Your task to perform on an android device: open sync settings in chrome Image 0: 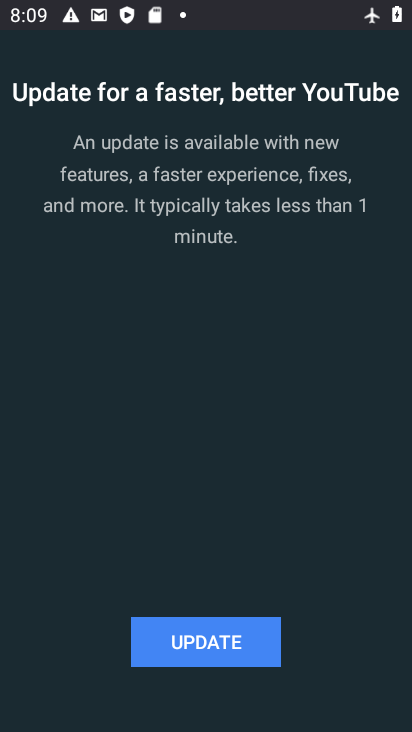
Step 0: press home button
Your task to perform on an android device: open sync settings in chrome Image 1: 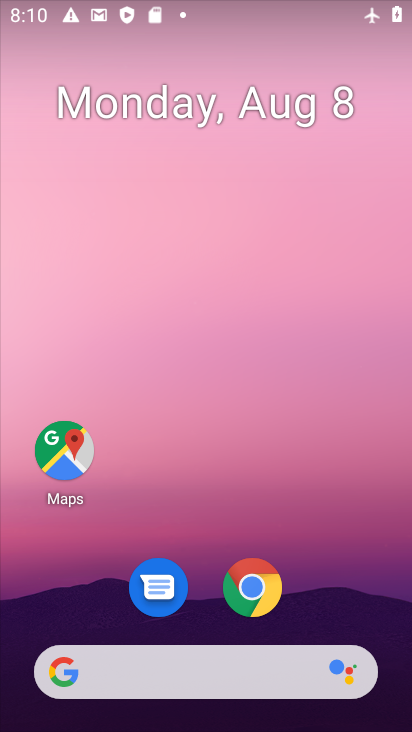
Step 1: click (246, 600)
Your task to perform on an android device: open sync settings in chrome Image 2: 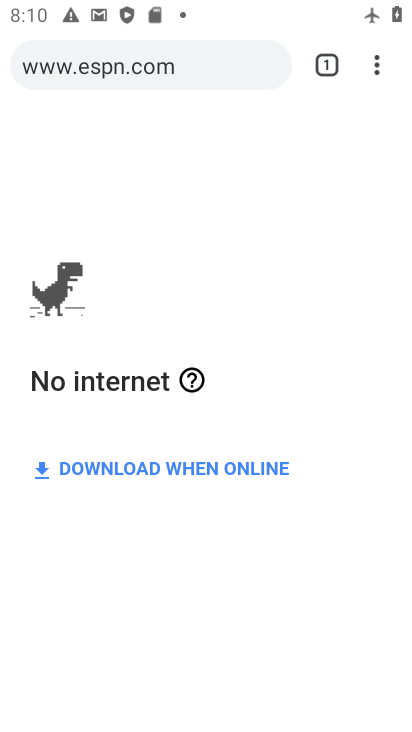
Step 2: click (371, 67)
Your task to perform on an android device: open sync settings in chrome Image 3: 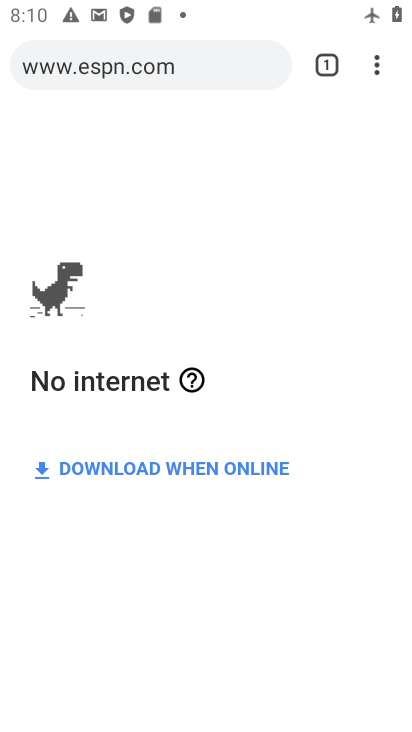
Step 3: click (376, 73)
Your task to perform on an android device: open sync settings in chrome Image 4: 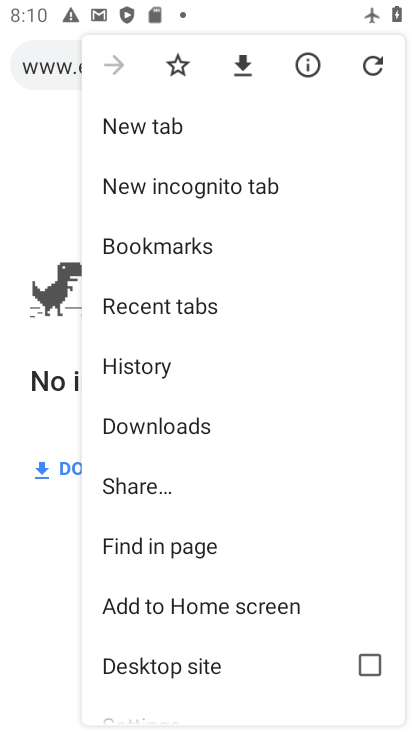
Step 4: drag from (132, 695) to (108, 275)
Your task to perform on an android device: open sync settings in chrome Image 5: 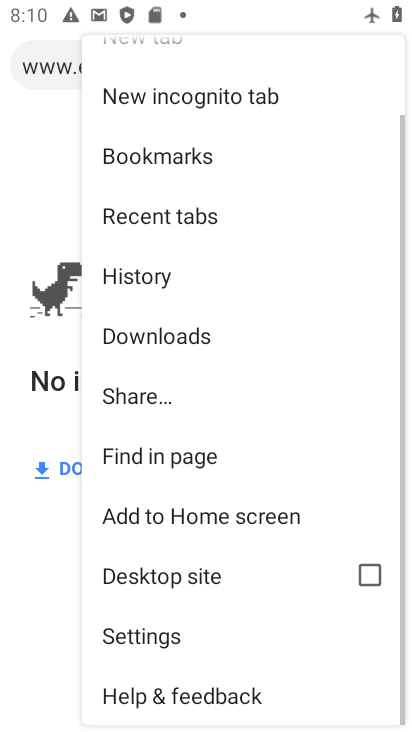
Step 5: click (165, 638)
Your task to perform on an android device: open sync settings in chrome Image 6: 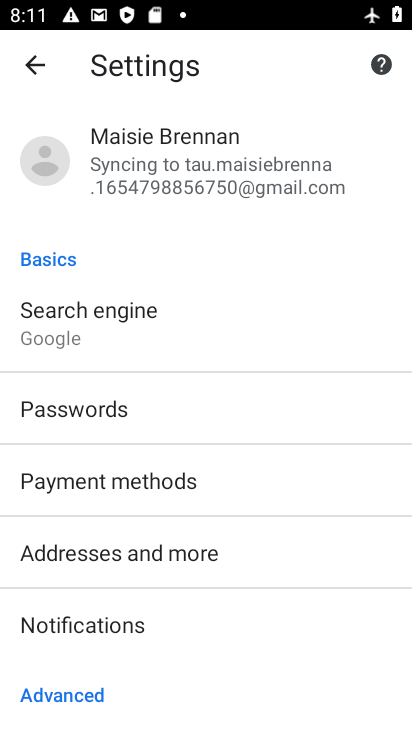
Step 6: click (89, 156)
Your task to perform on an android device: open sync settings in chrome Image 7: 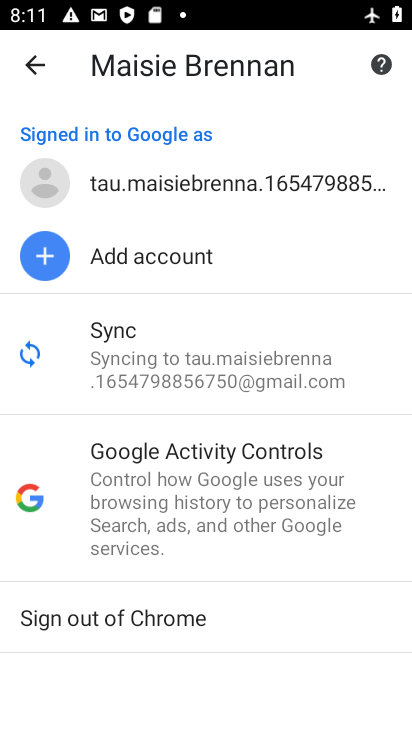
Step 7: click (155, 362)
Your task to perform on an android device: open sync settings in chrome Image 8: 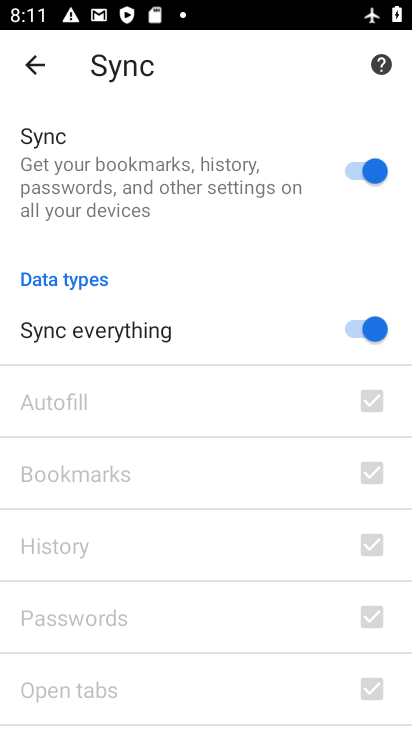
Step 8: task complete